Your task to perform on an android device: see creations saved in the google photos Image 0: 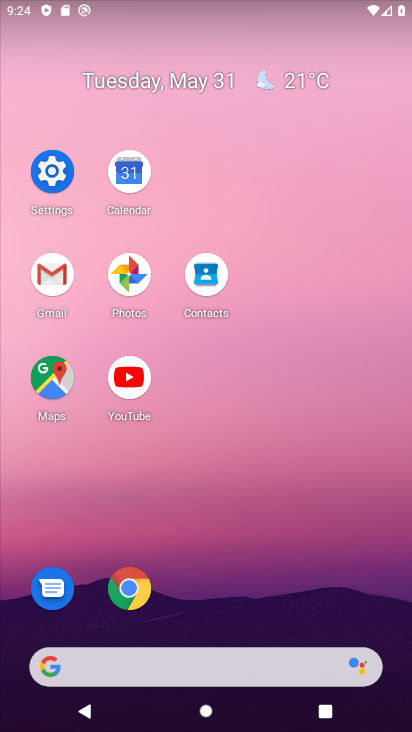
Step 0: click (143, 262)
Your task to perform on an android device: see creations saved in the google photos Image 1: 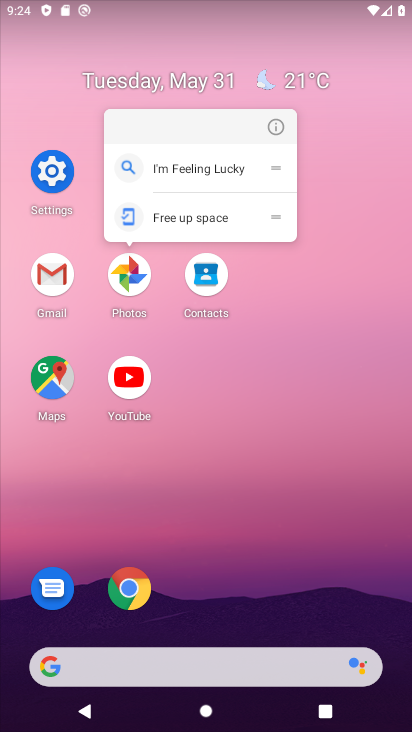
Step 1: click (130, 273)
Your task to perform on an android device: see creations saved in the google photos Image 2: 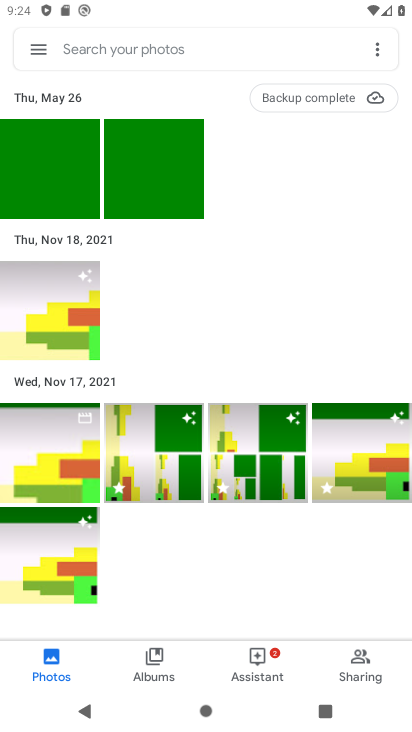
Step 2: click (178, 43)
Your task to perform on an android device: see creations saved in the google photos Image 3: 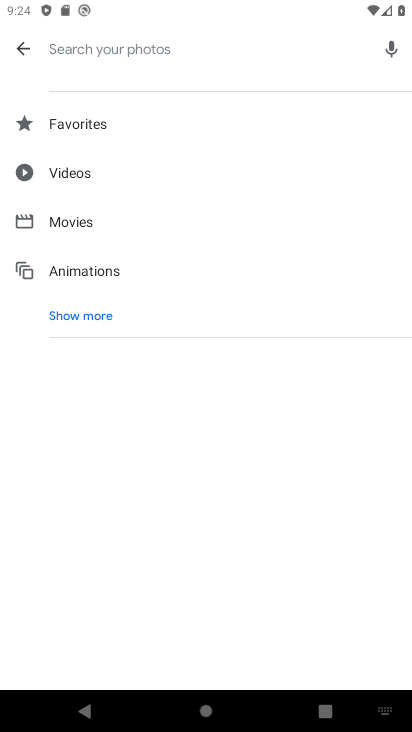
Step 3: click (126, 319)
Your task to perform on an android device: see creations saved in the google photos Image 4: 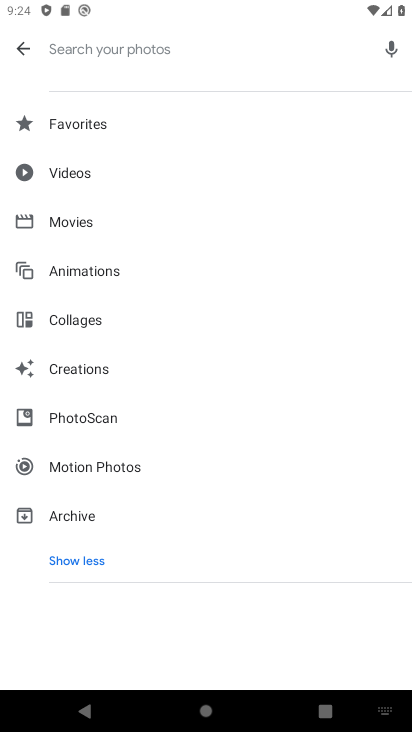
Step 4: click (115, 373)
Your task to perform on an android device: see creations saved in the google photos Image 5: 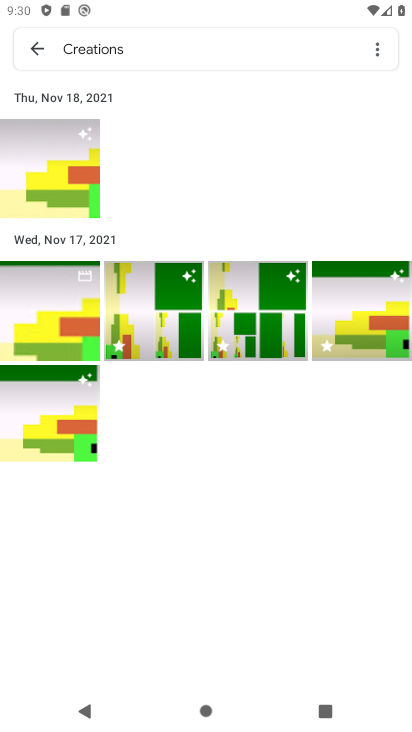
Step 5: task complete